Your task to perform on an android device: Go to CNN.com Image 0: 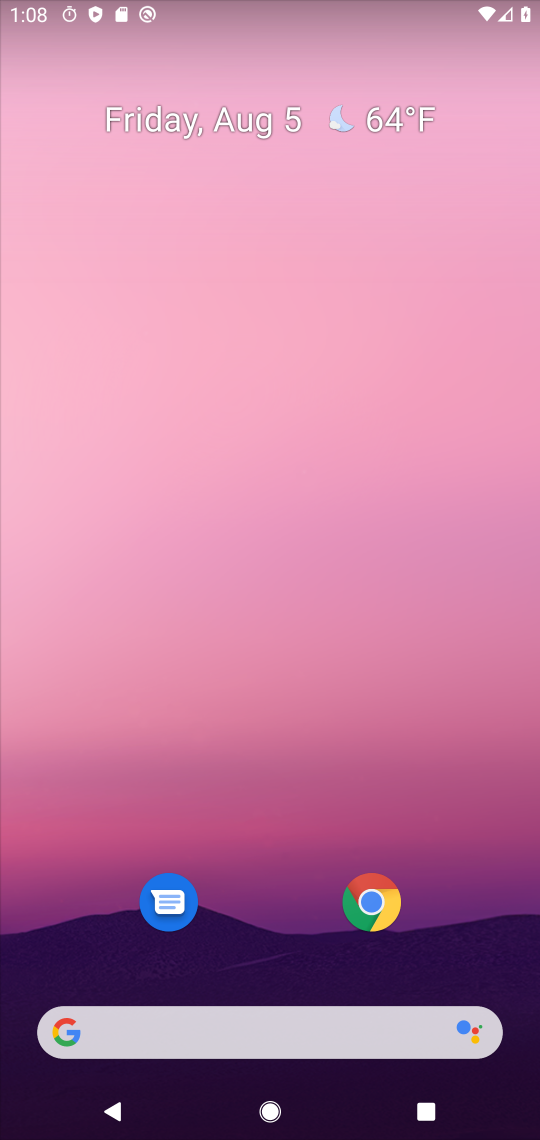
Step 0: drag from (379, 954) to (255, 284)
Your task to perform on an android device: Go to CNN.com Image 1: 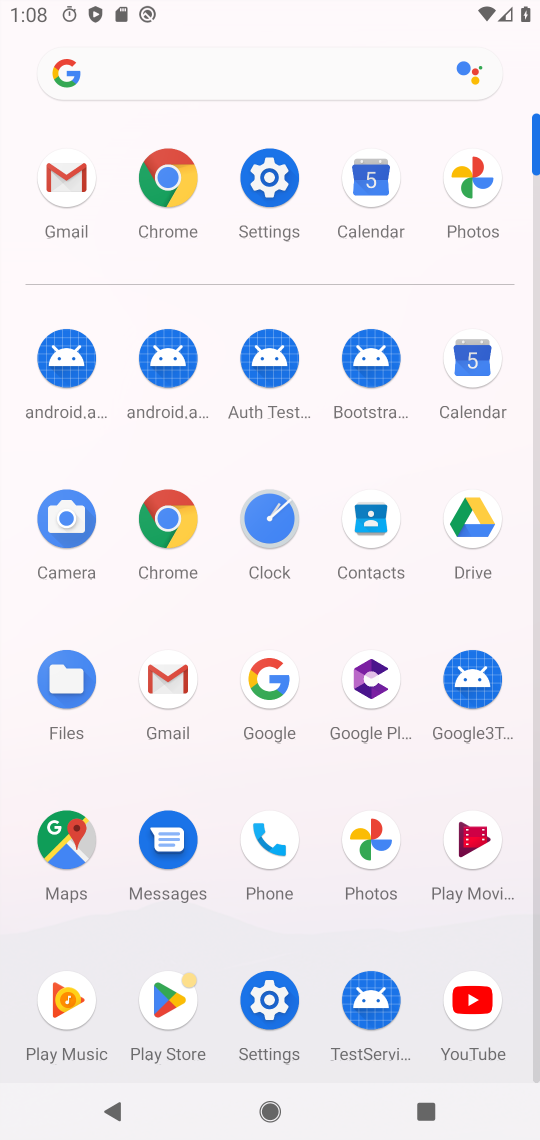
Step 1: click (158, 210)
Your task to perform on an android device: Go to CNN.com Image 2: 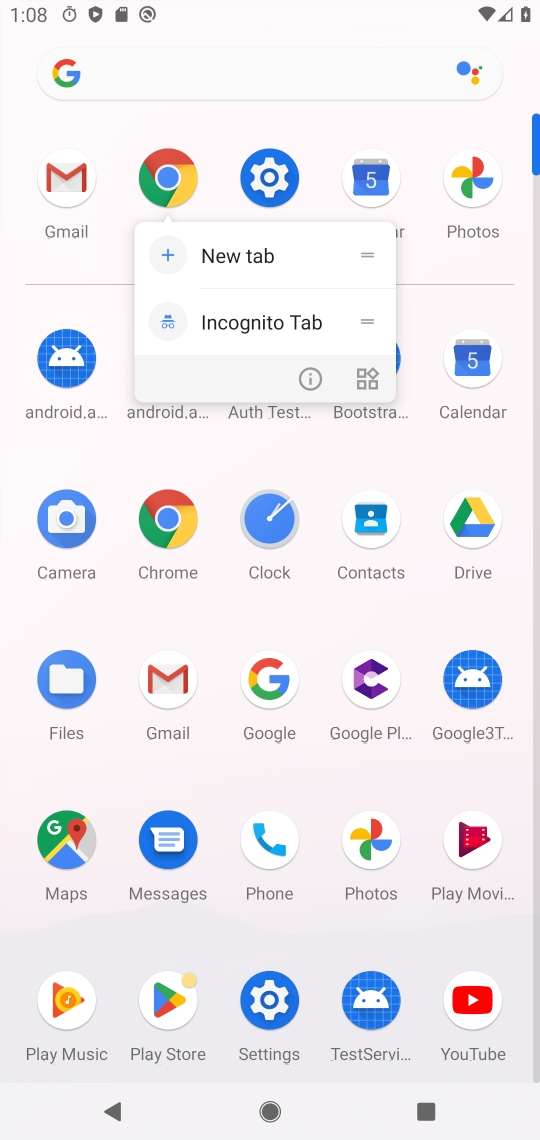
Step 2: click (166, 166)
Your task to perform on an android device: Go to CNN.com Image 3: 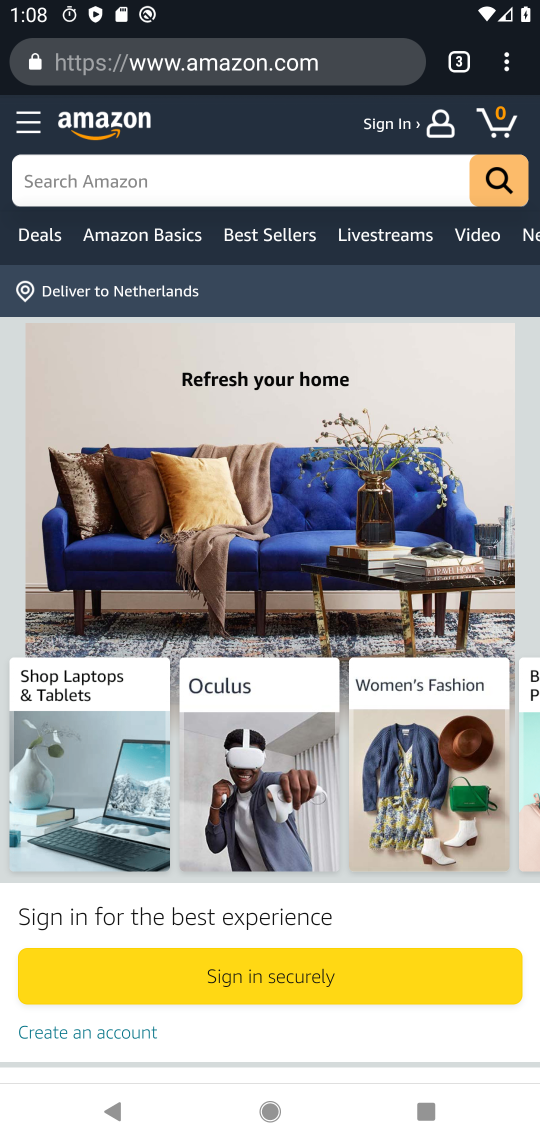
Step 3: click (204, 60)
Your task to perform on an android device: Go to CNN.com Image 4: 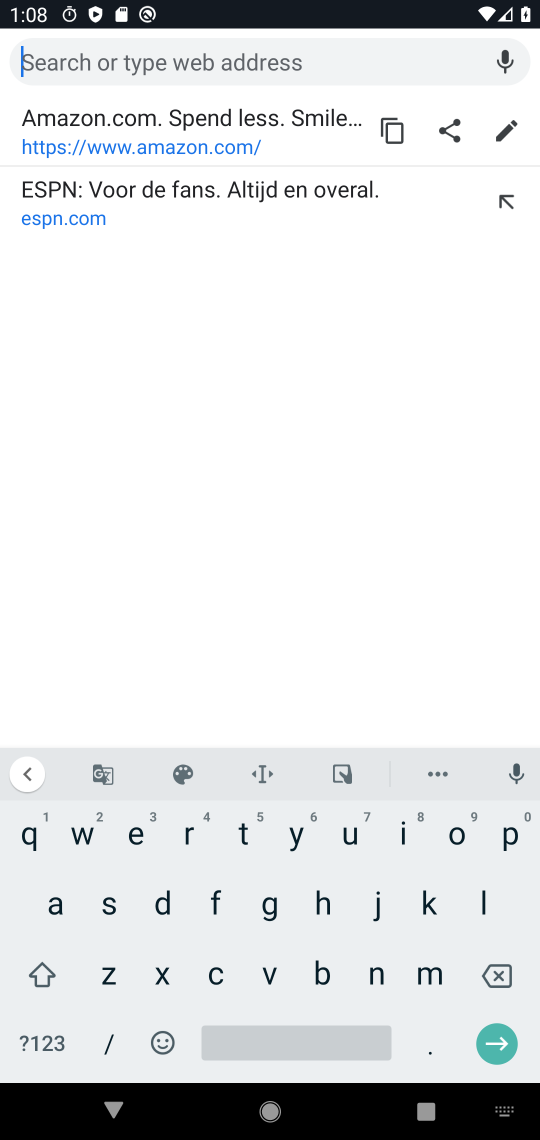
Step 4: click (221, 980)
Your task to perform on an android device: Go to CNN.com Image 5: 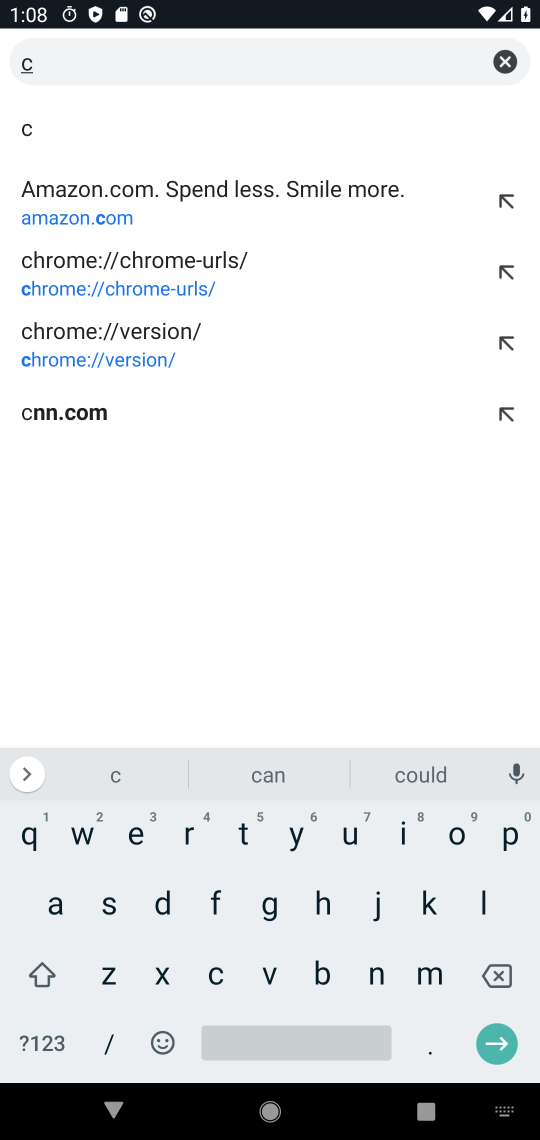
Step 5: click (376, 970)
Your task to perform on an android device: Go to CNN.com Image 6: 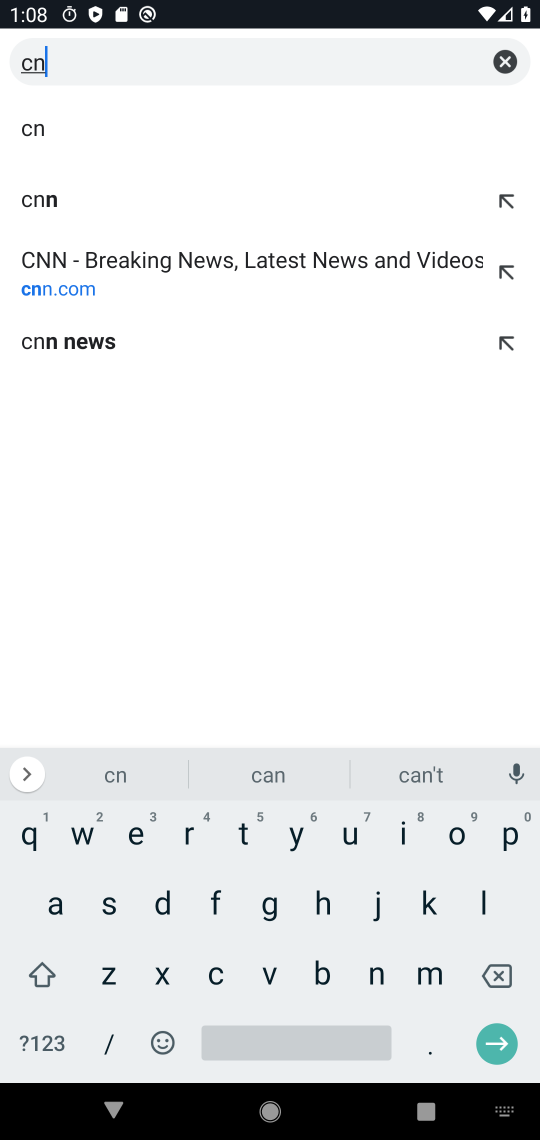
Step 6: click (81, 207)
Your task to perform on an android device: Go to CNN.com Image 7: 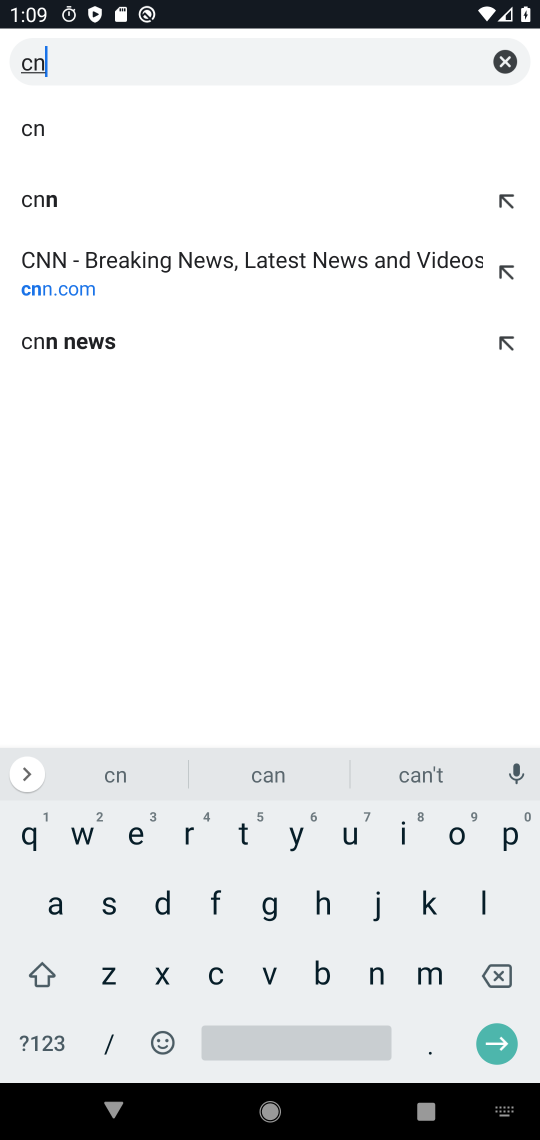
Step 7: click (53, 209)
Your task to perform on an android device: Go to CNN.com Image 8: 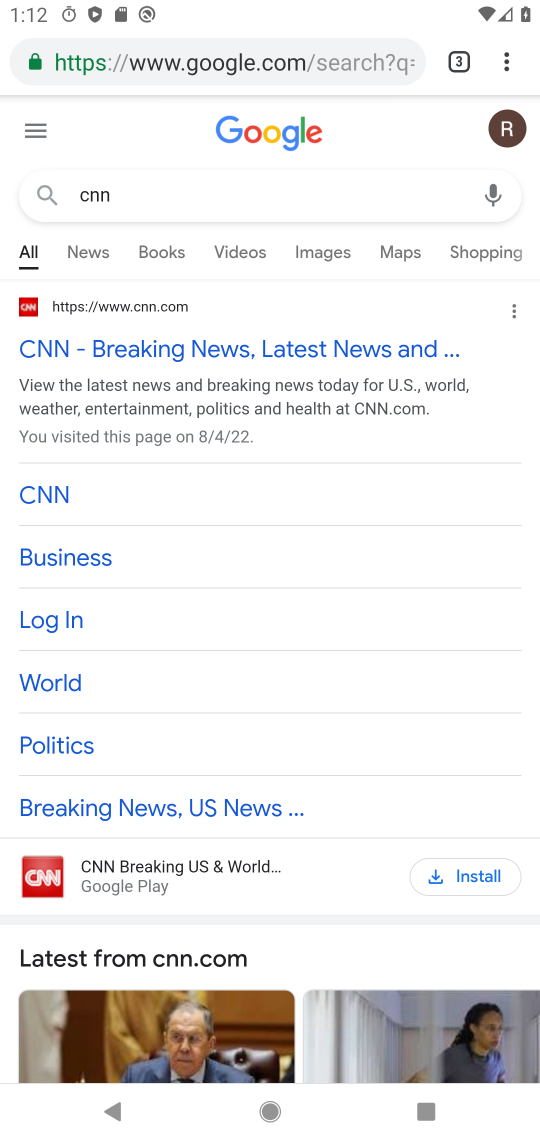
Step 8: task complete